Your task to perform on an android device: turn off notifications settings in the gmail app Image 0: 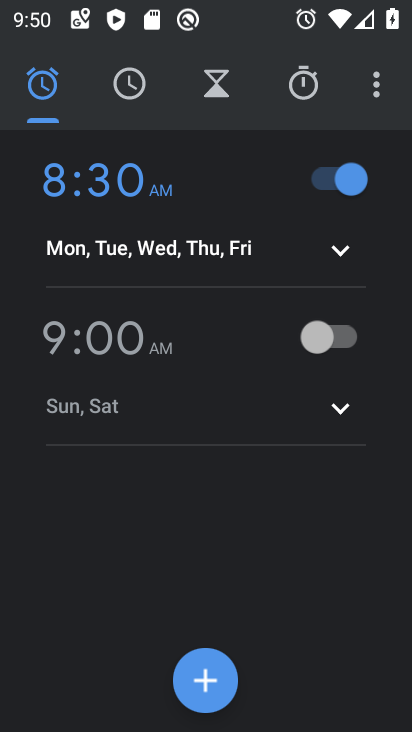
Step 0: press home button
Your task to perform on an android device: turn off notifications settings in the gmail app Image 1: 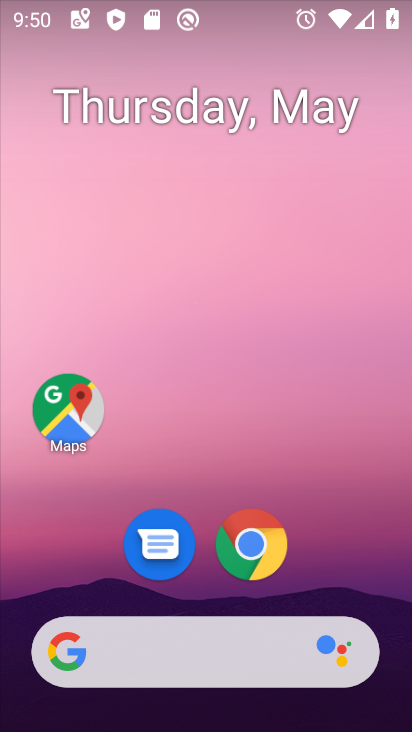
Step 1: drag from (207, 599) to (252, 296)
Your task to perform on an android device: turn off notifications settings in the gmail app Image 2: 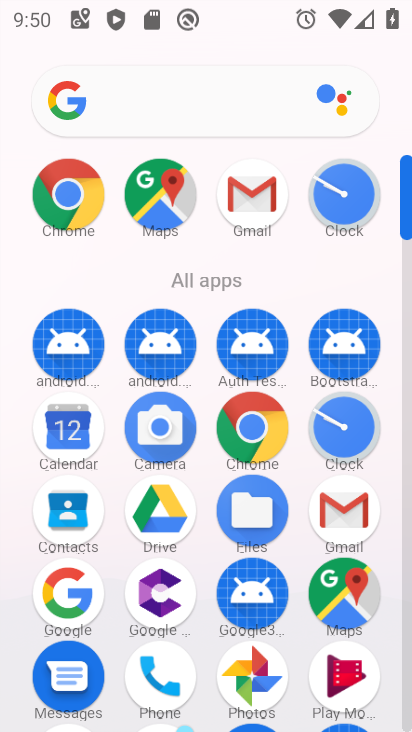
Step 2: click (253, 199)
Your task to perform on an android device: turn off notifications settings in the gmail app Image 3: 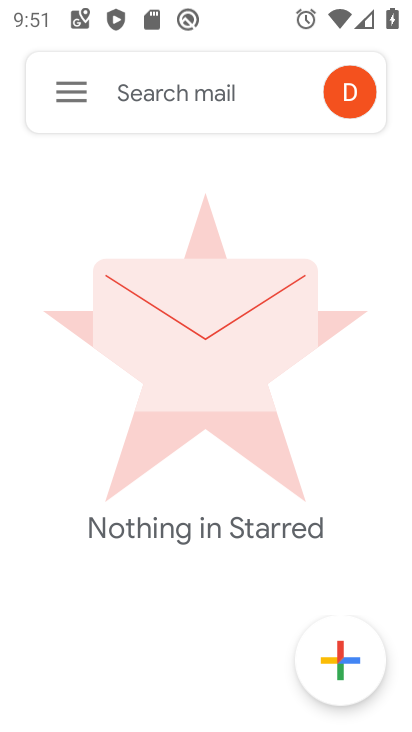
Step 3: click (62, 97)
Your task to perform on an android device: turn off notifications settings in the gmail app Image 4: 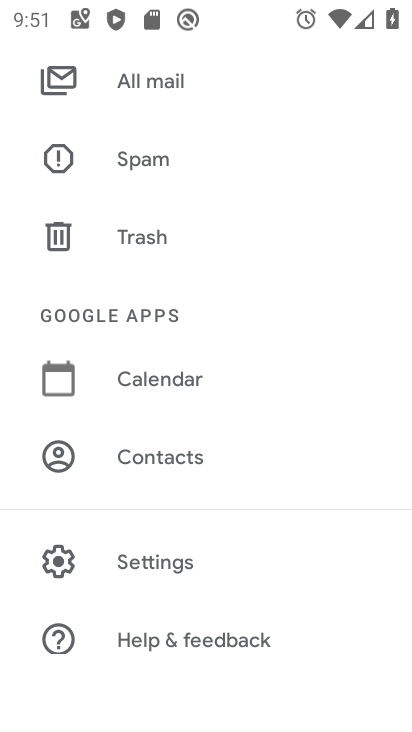
Step 4: click (184, 570)
Your task to perform on an android device: turn off notifications settings in the gmail app Image 5: 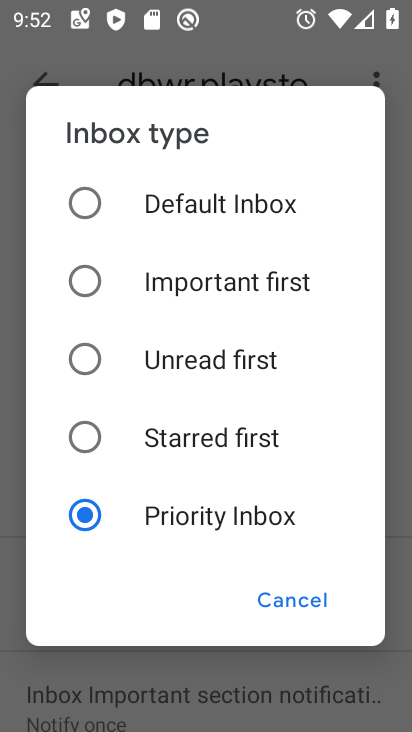
Step 5: click (303, 606)
Your task to perform on an android device: turn off notifications settings in the gmail app Image 6: 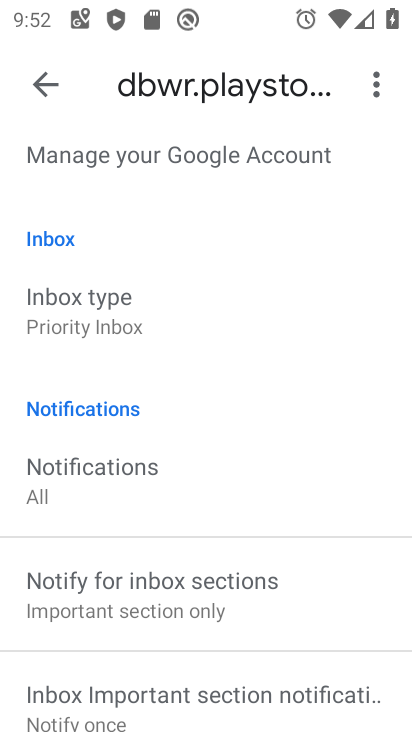
Step 6: drag from (139, 624) to (156, 343)
Your task to perform on an android device: turn off notifications settings in the gmail app Image 7: 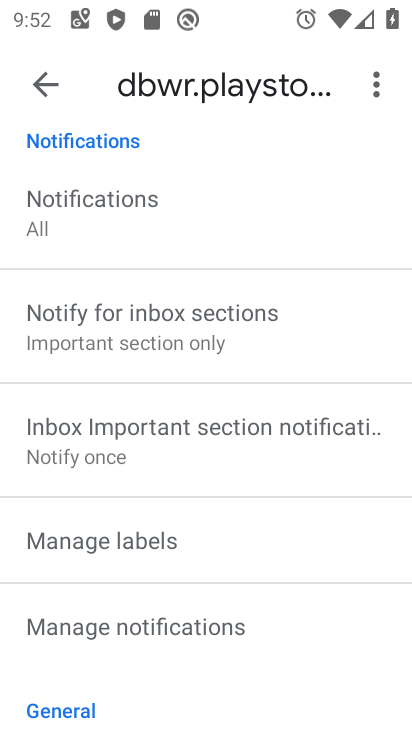
Step 7: click (180, 648)
Your task to perform on an android device: turn off notifications settings in the gmail app Image 8: 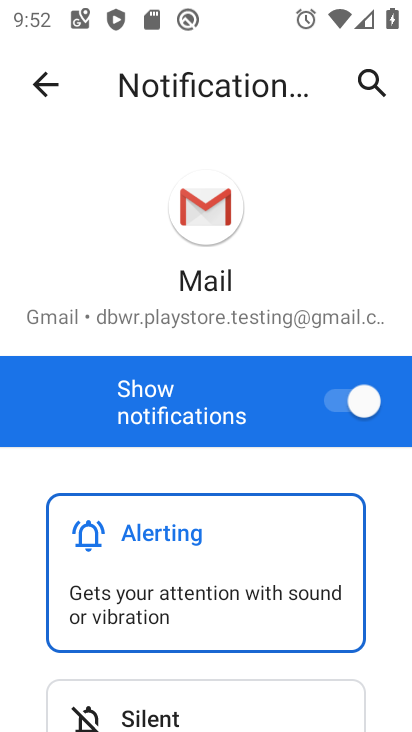
Step 8: click (303, 396)
Your task to perform on an android device: turn off notifications settings in the gmail app Image 9: 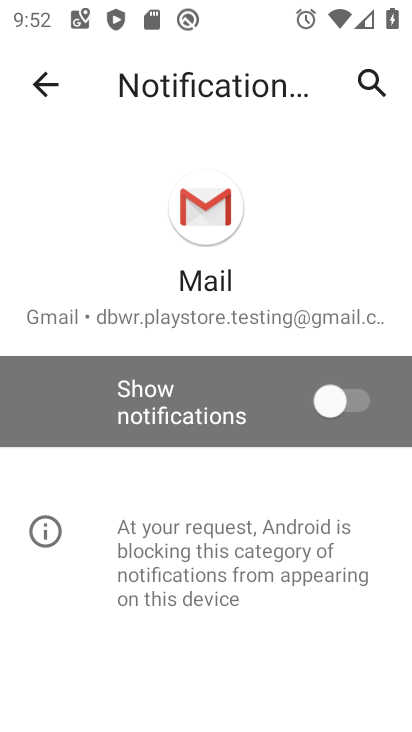
Step 9: task complete